Your task to perform on an android device: Go to Yahoo.com Image 0: 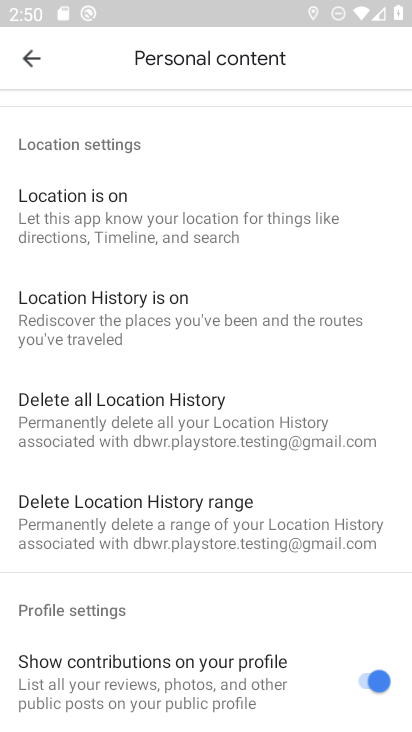
Step 0: press home button
Your task to perform on an android device: Go to Yahoo.com Image 1: 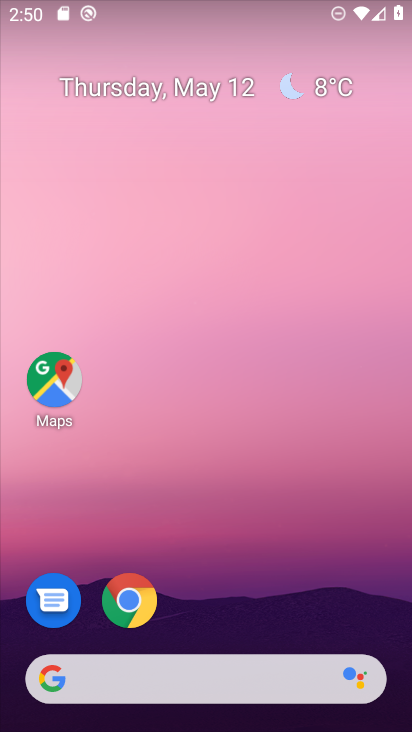
Step 1: click (138, 607)
Your task to perform on an android device: Go to Yahoo.com Image 2: 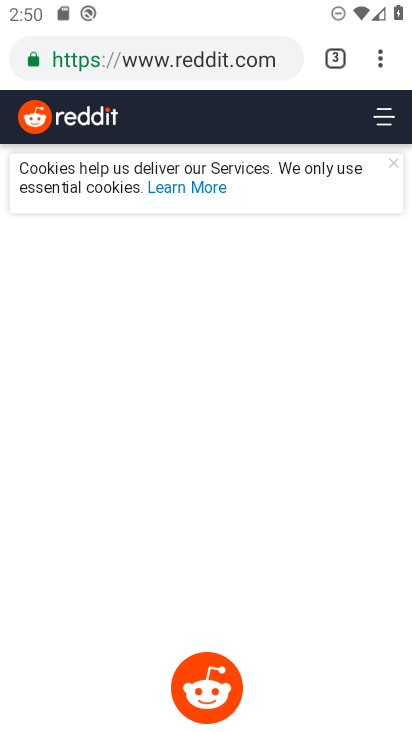
Step 2: click (383, 65)
Your task to perform on an android device: Go to Yahoo.com Image 3: 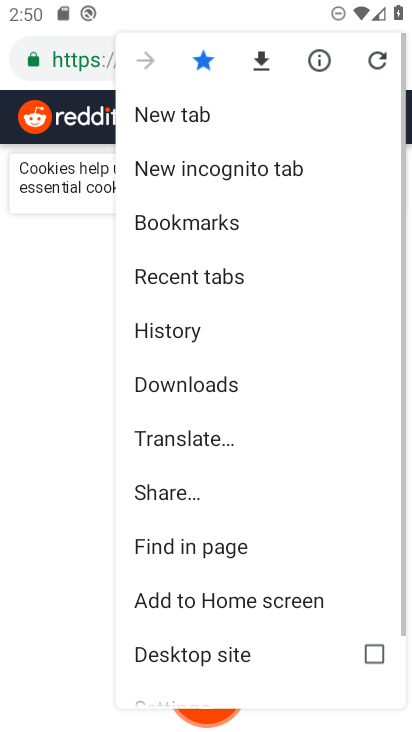
Step 3: click (187, 110)
Your task to perform on an android device: Go to Yahoo.com Image 4: 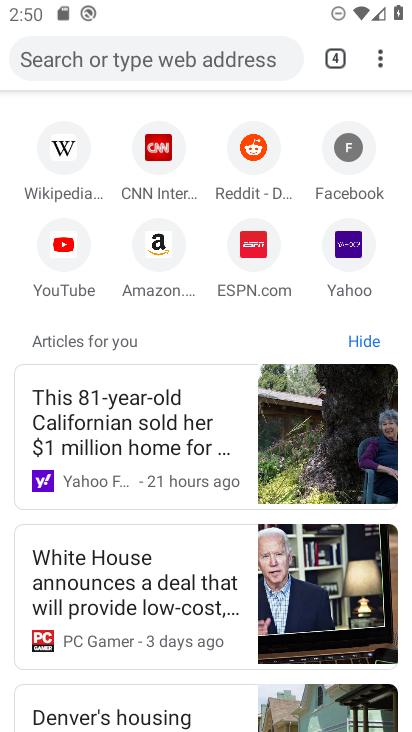
Step 4: click (143, 57)
Your task to perform on an android device: Go to Yahoo.com Image 5: 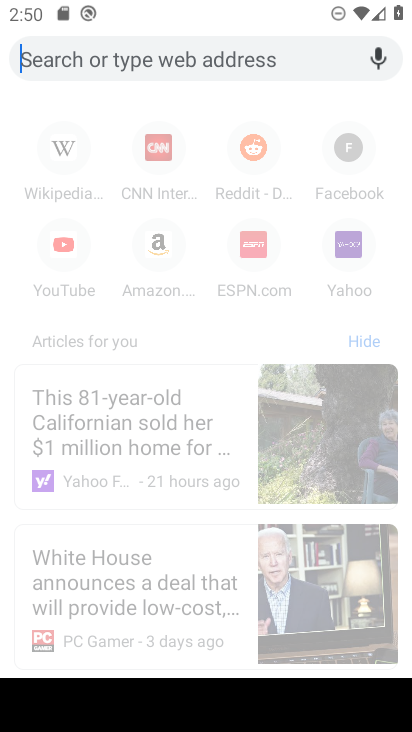
Step 5: type "Yahoo.com"
Your task to perform on an android device: Go to Yahoo.com Image 6: 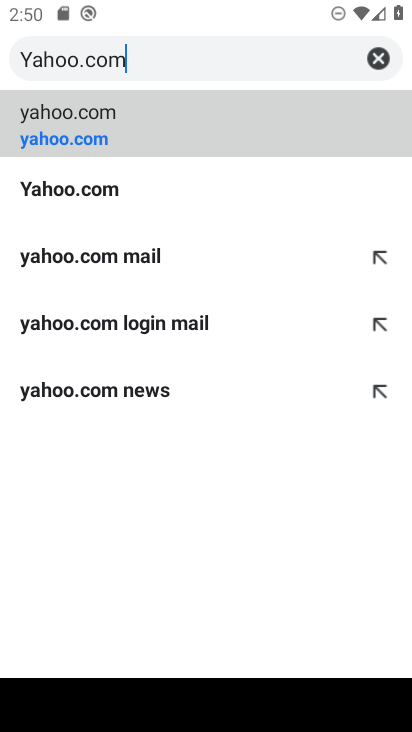
Step 6: click (120, 131)
Your task to perform on an android device: Go to Yahoo.com Image 7: 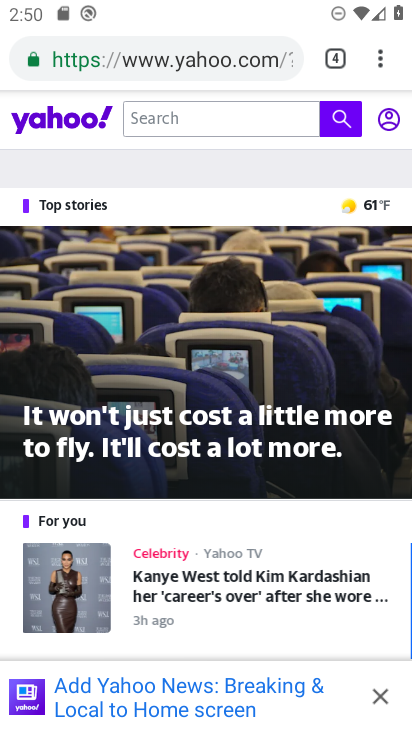
Step 7: task complete